Your task to perform on an android device: Search for vegetarian restaurants on Maps Image 0: 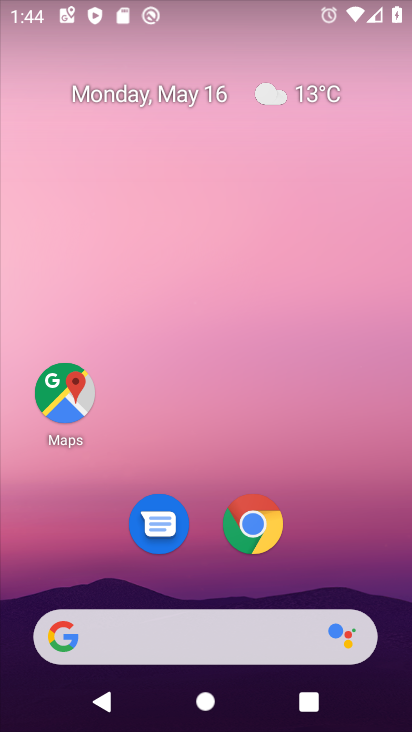
Step 0: click (68, 403)
Your task to perform on an android device: Search for vegetarian restaurants on Maps Image 1: 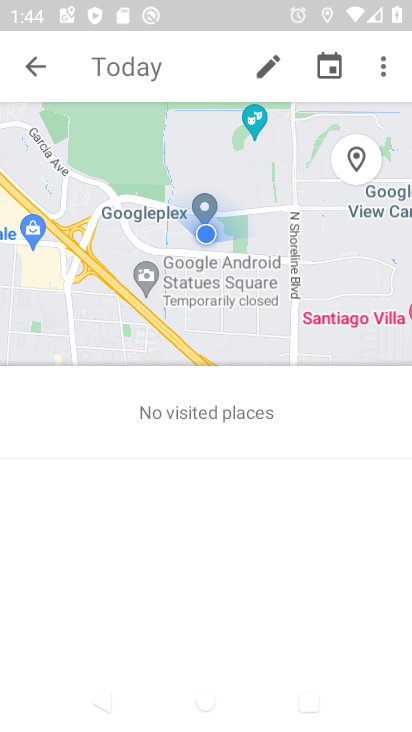
Step 1: click (31, 59)
Your task to perform on an android device: Search for vegetarian restaurants on Maps Image 2: 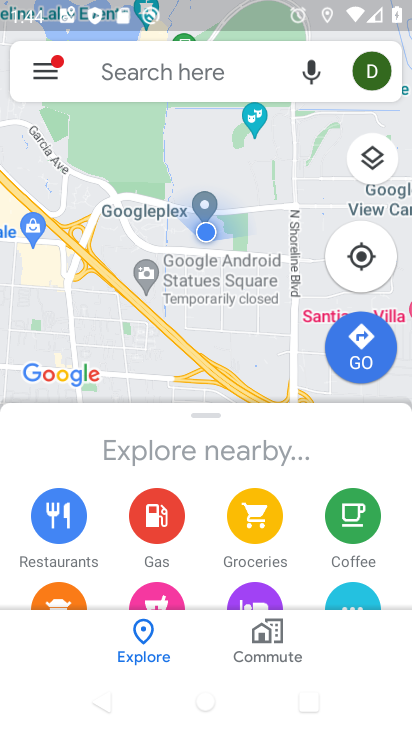
Step 2: click (140, 65)
Your task to perform on an android device: Search for vegetarian restaurants on Maps Image 3: 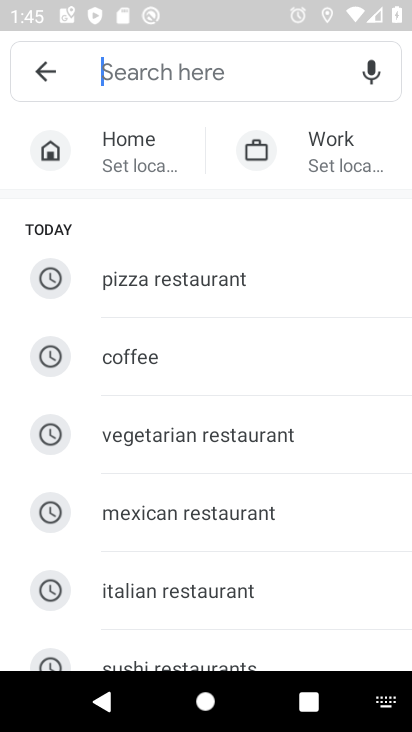
Step 3: click (184, 434)
Your task to perform on an android device: Search for vegetarian restaurants on Maps Image 4: 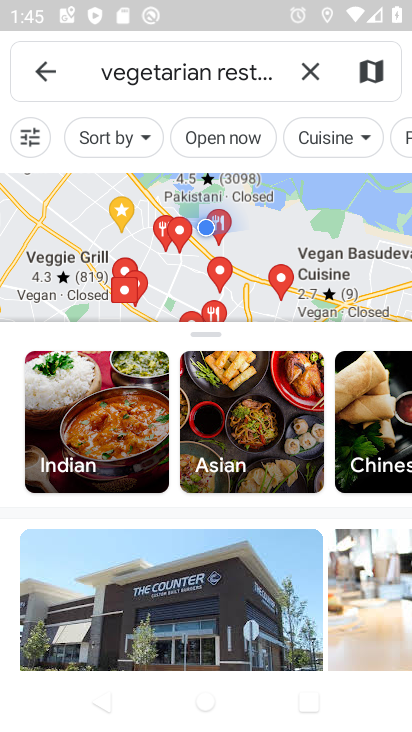
Step 4: task complete